Your task to perform on an android device: open a bookmark in the chrome app Image 0: 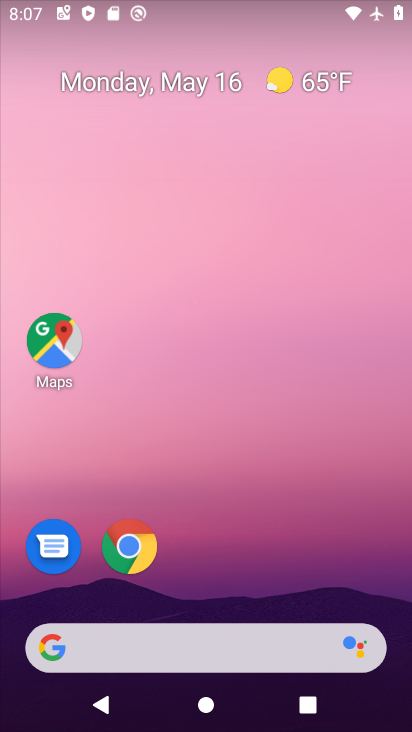
Step 0: click (146, 560)
Your task to perform on an android device: open a bookmark in the chrome app Image 1: 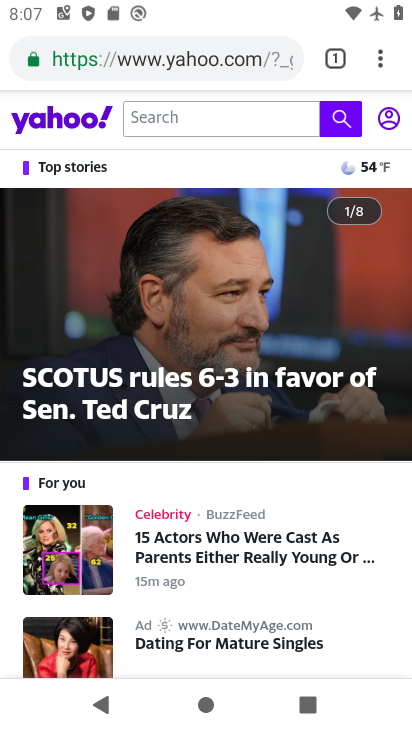
Step 1: click (388, 74)
Your task to perform on an android device: open a bookmark in the chrome app Image 2: 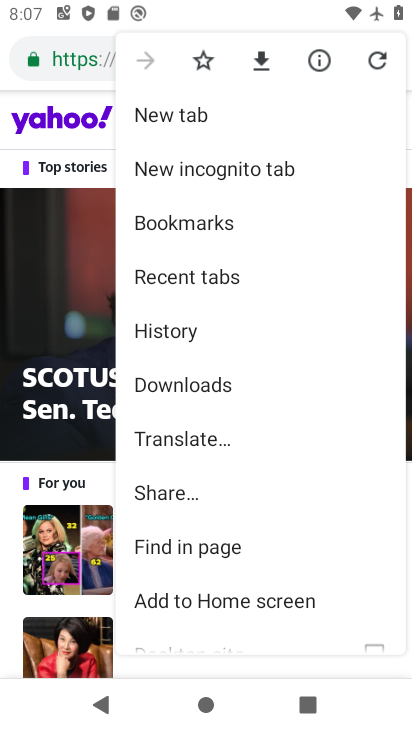
Step 2: click (239, 231)
Your task to perform on an android device: open a bookmark in the chrome app Image 3: 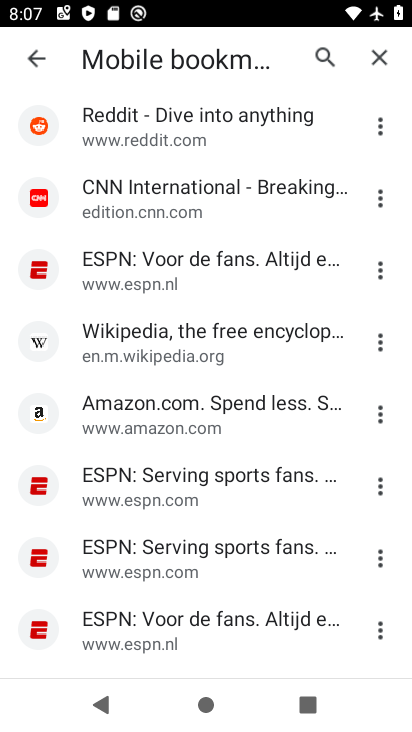
Step 3: click (221, 208)
Your task to perform on an android device: open a bookmark in the chrome app Image 4: 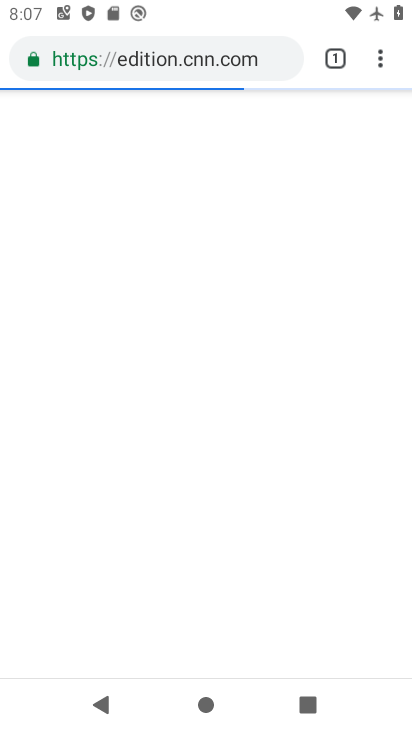
Step 4: task complete